Your task to perform on an android device: Open Google Maps and go to "Timeline" Image 0: 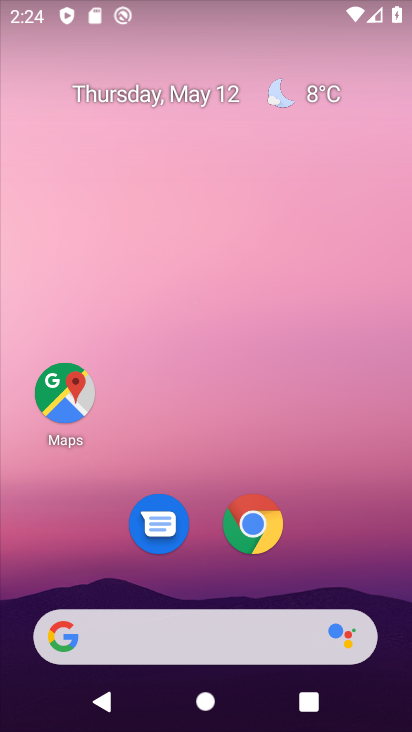
Step 0: click (56, 402)
Your task to perform on an android device: Open Google Maps and go to "Timeline" Image 1: 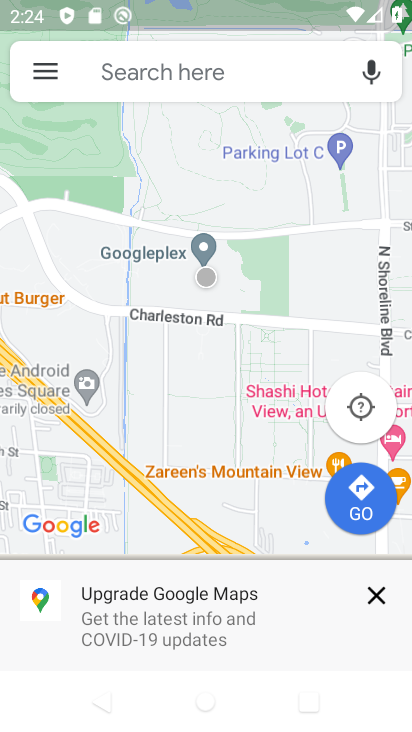
Step 1: click (45, 64)
Your task to perform on an android device: Open Google Maps and go to "Timeline" Image 2: 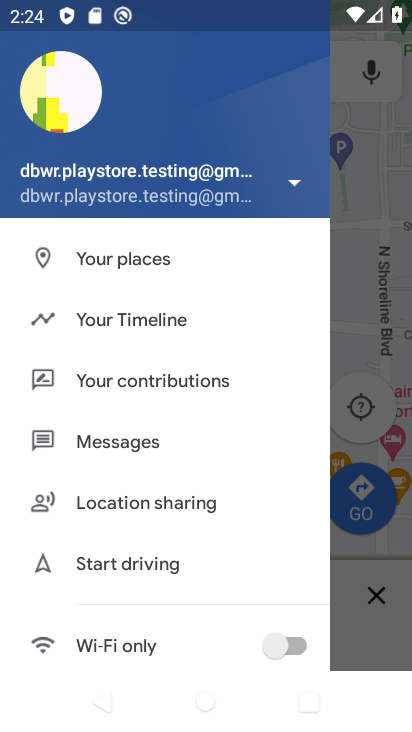
Step 2: click (135, 318)
Your task to perform on an android device: Open Google Maps and go to "Timeline" Image 3: 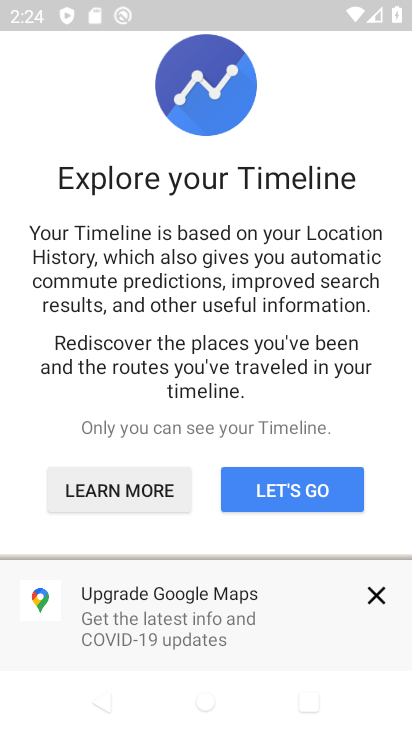
Step 3: click (270, 478)
Your task to perform on an android device: Open Google Maps and go to "Timeline" Image 4: 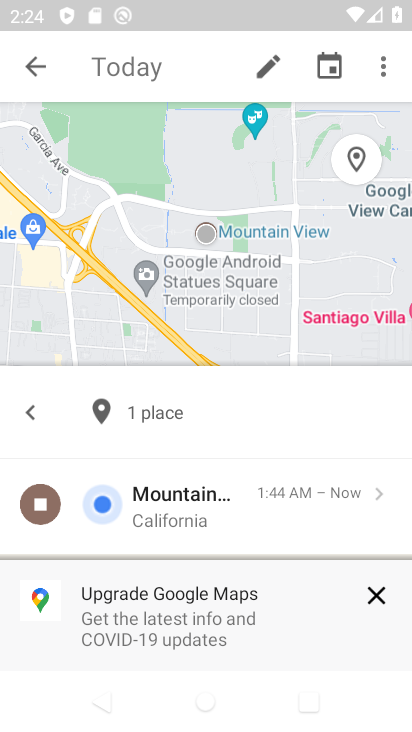
Step 4: task complete